Your task to perform on an android device: open app "Spotify" (install if not already installed), go to login, and select forgot password Image 0: 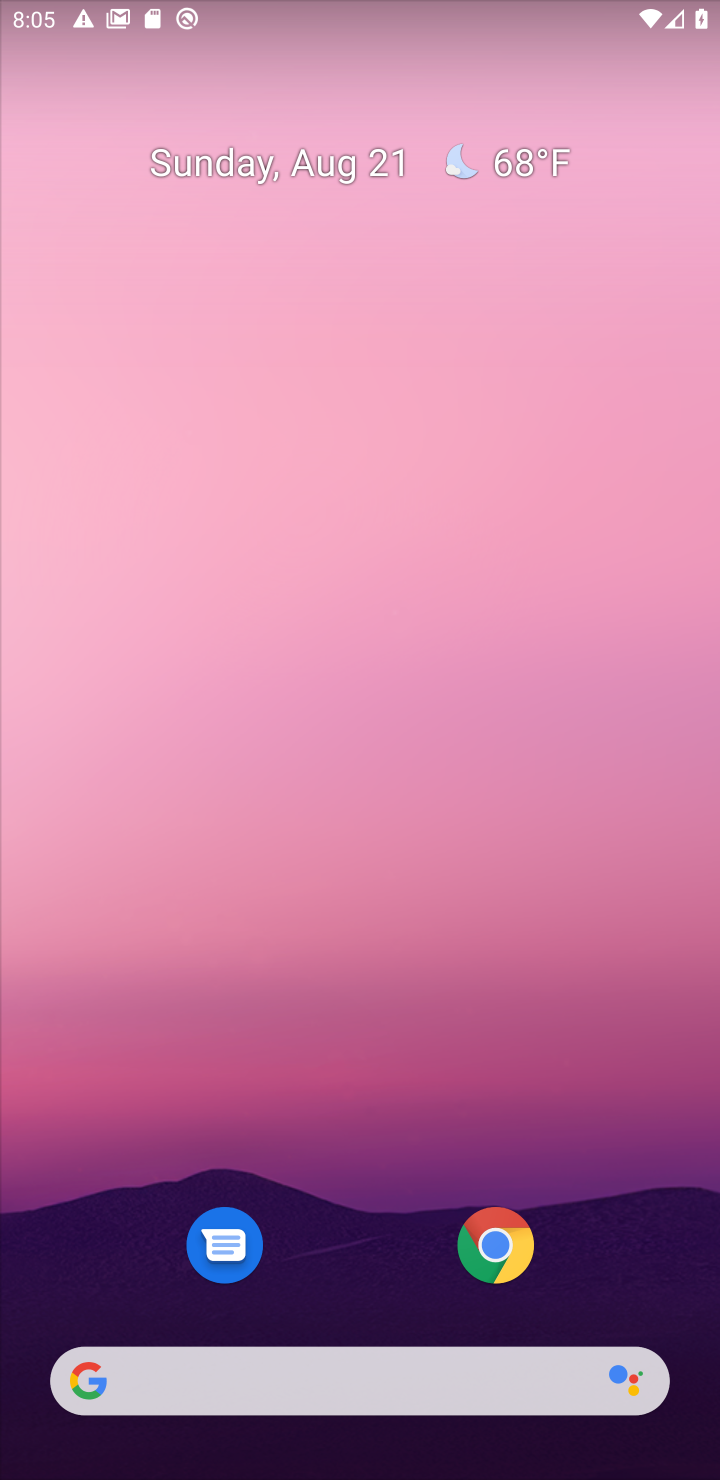
Step 0: drag from (352, 1317) to (259, 14)
Your task to perform on an android device: open app "Spotify" (install if not already installed), go to login, and select forgot password Image 1: 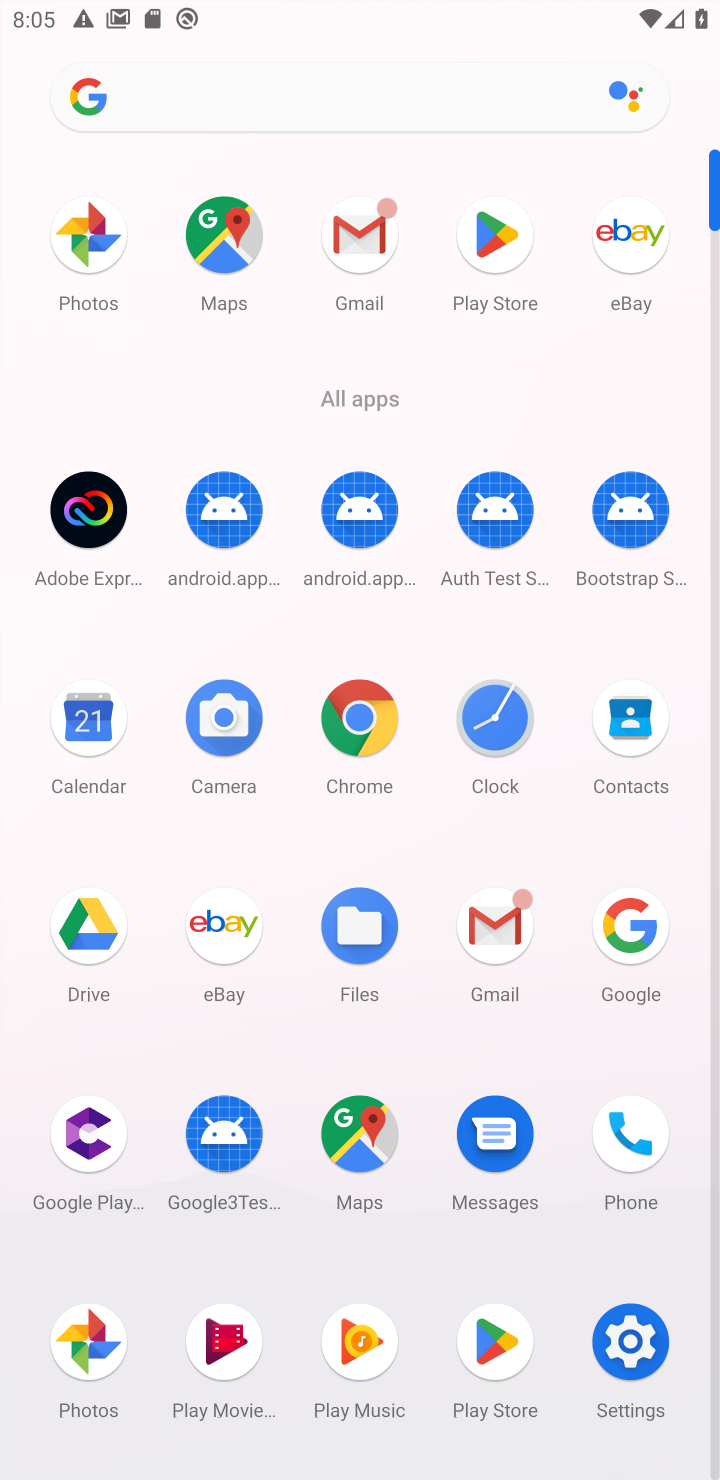
Step 1: click (490, 1356)
Your task to perform on an android device: open app "Spotify" (install if not already installed), go to login, and select forgot password Image 2: 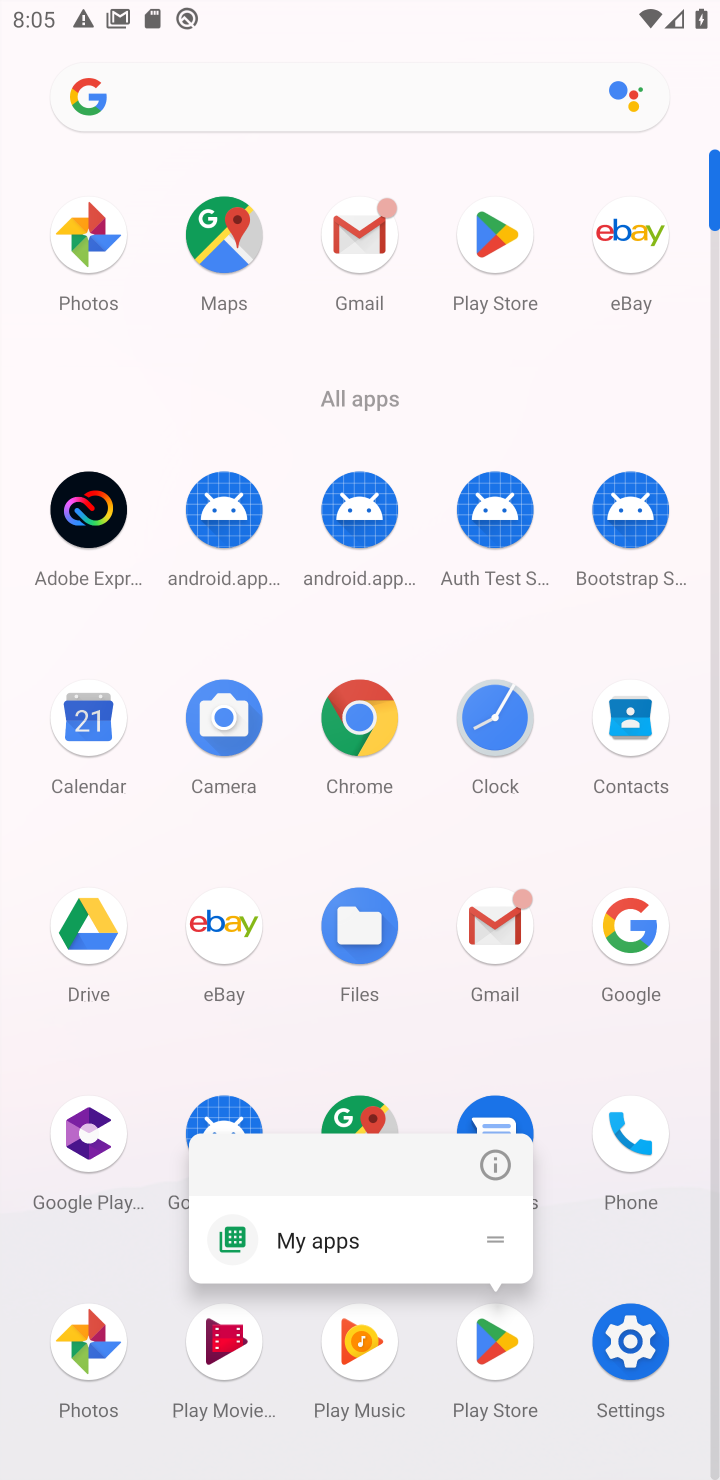
Step 2: click (479, 1337)
Your task to perform on an android device: open app "Spotify" (install if not already installed), go to login, and select forgot password Image 3: 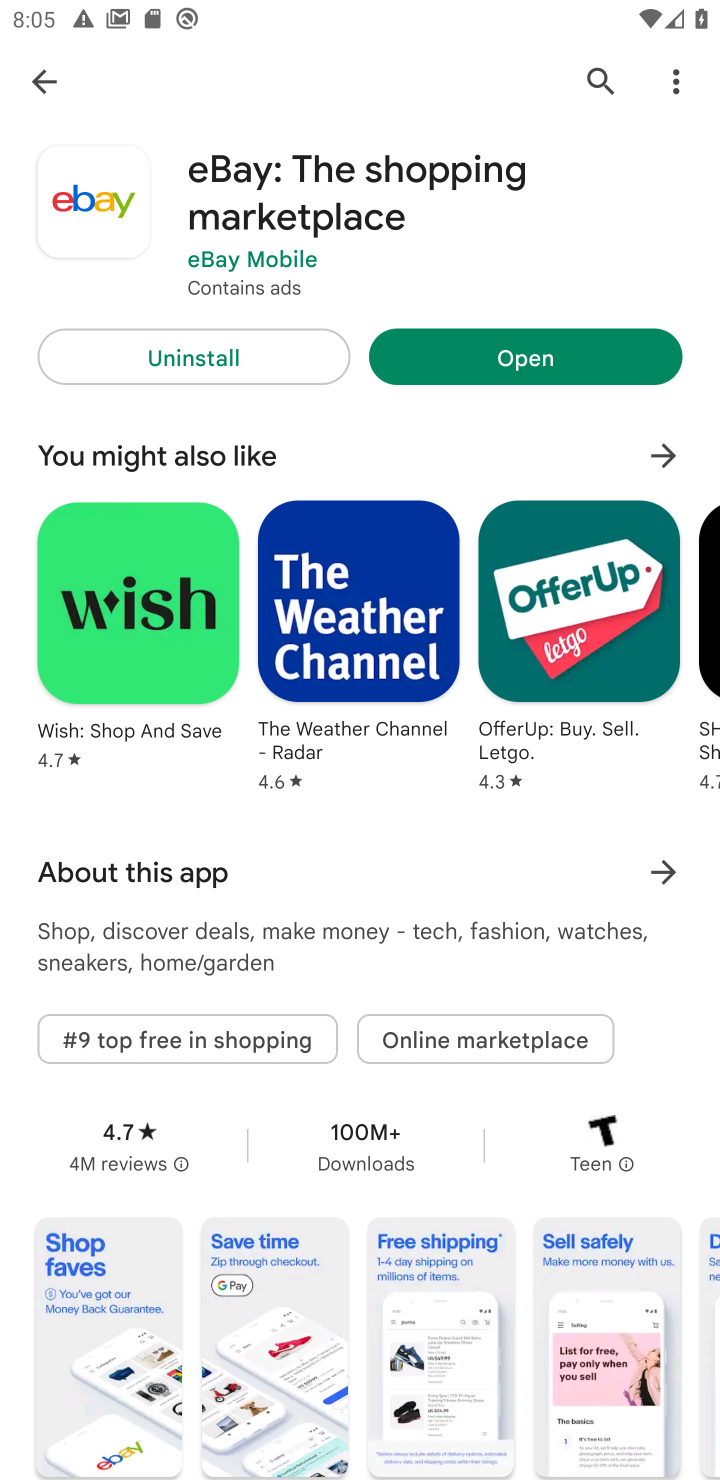
Step 3: click (24, 86)
Your task to perform on an android device: open app "Spotify" (install if not already installed), go to login, and select forgot password Image 4: 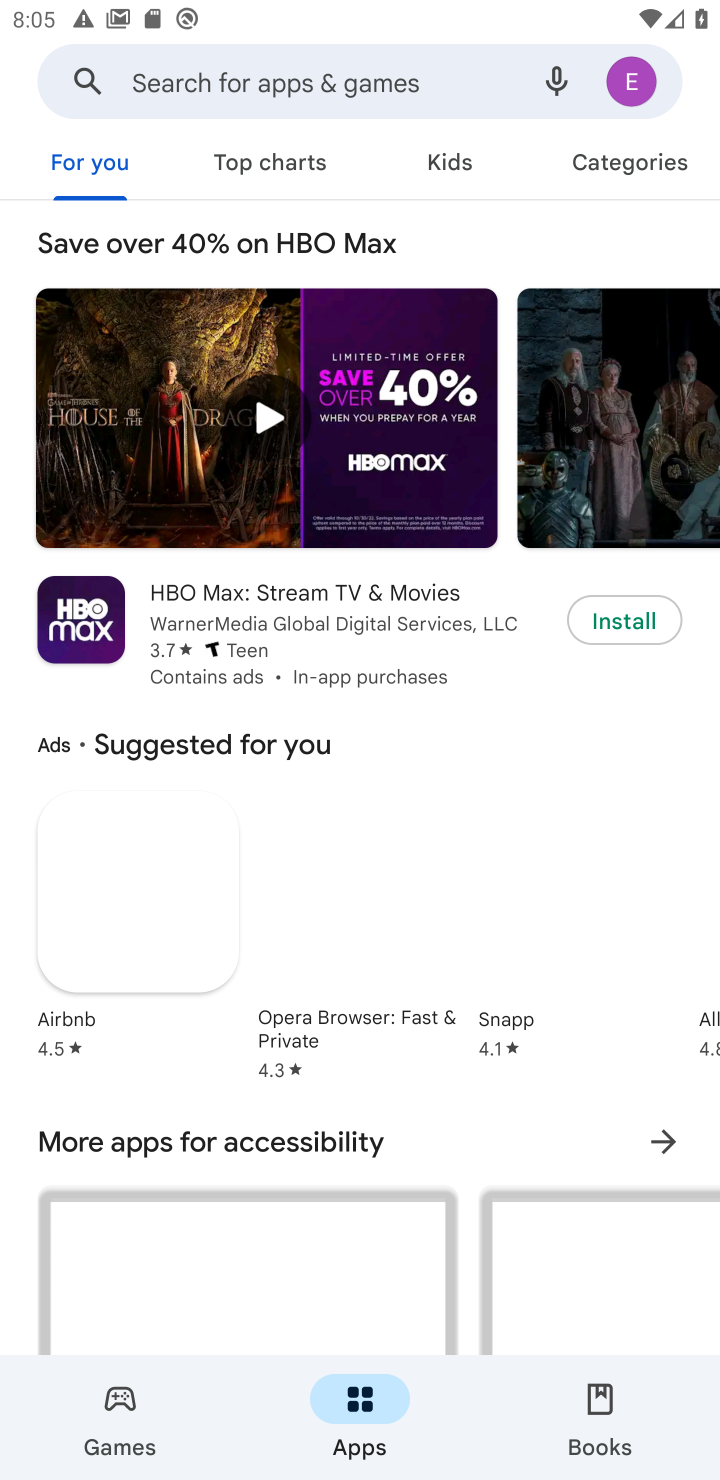
Step 4: click (204, 90)
Your task to perform on an android device: open app "Spotify" (install if not already installed), go to login, and select forgot password Image 5: 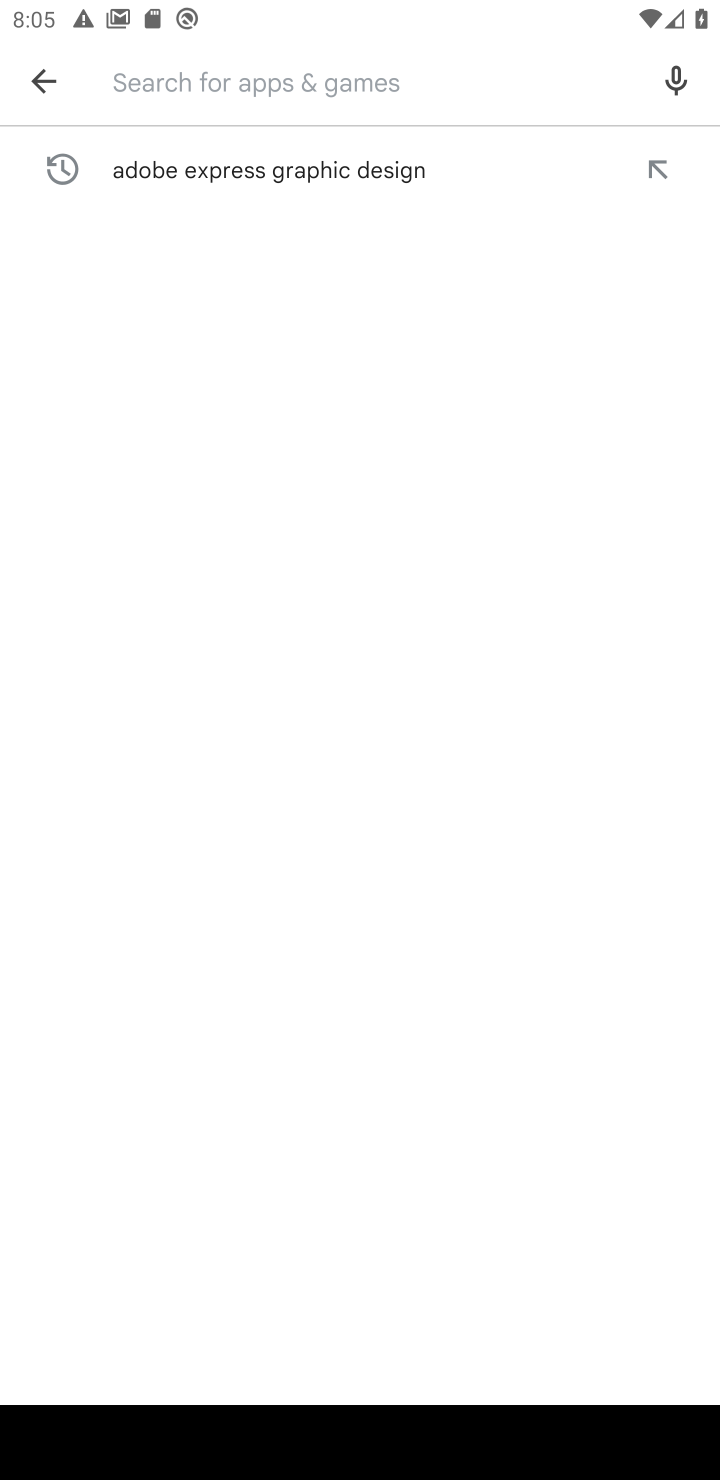
Step 5: type "Spotify"
Your task to perform on an android device: open app "Spotify" (install if not already installed), go to login, and select forgot password Image 6: 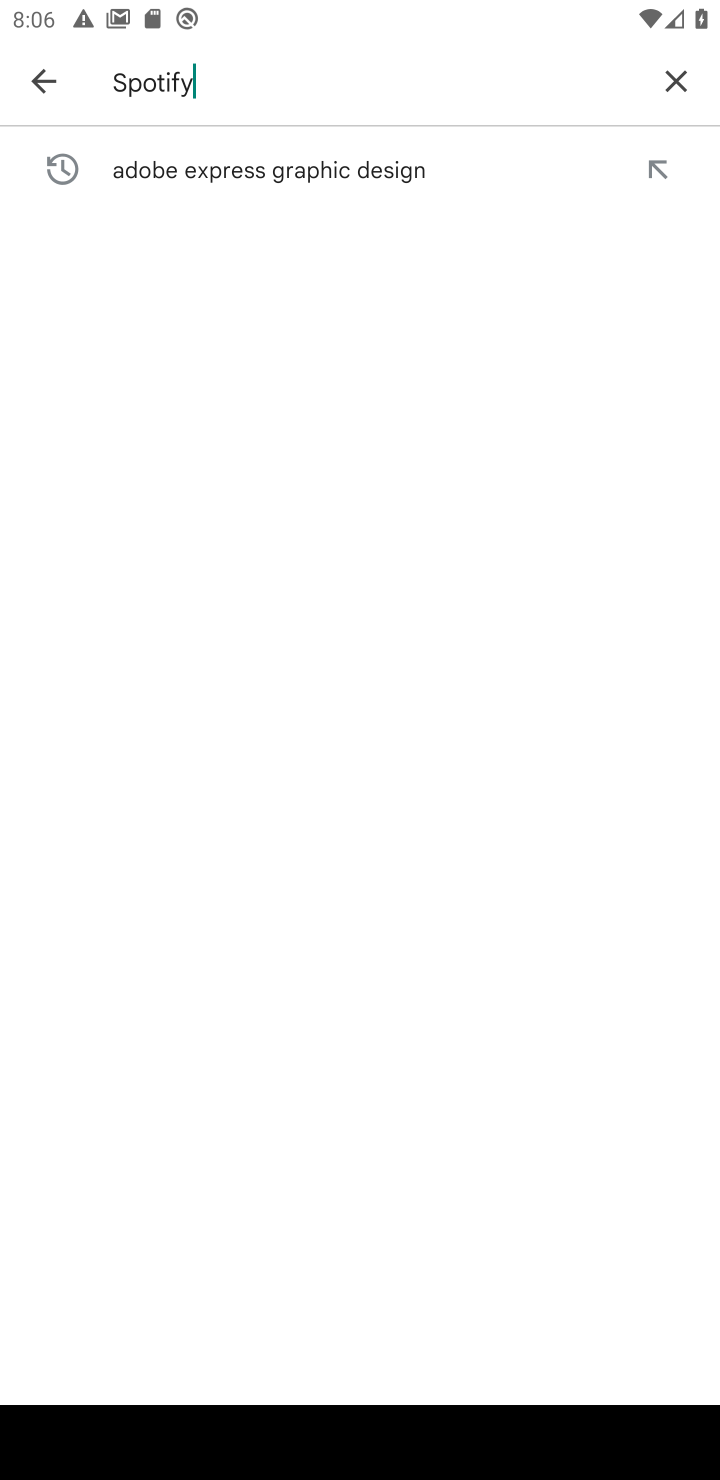
Step 6: type ""
Your task to perform on an android device: open app "Spotify" (install if not already installed), go to login, and select forgot password Image 7: 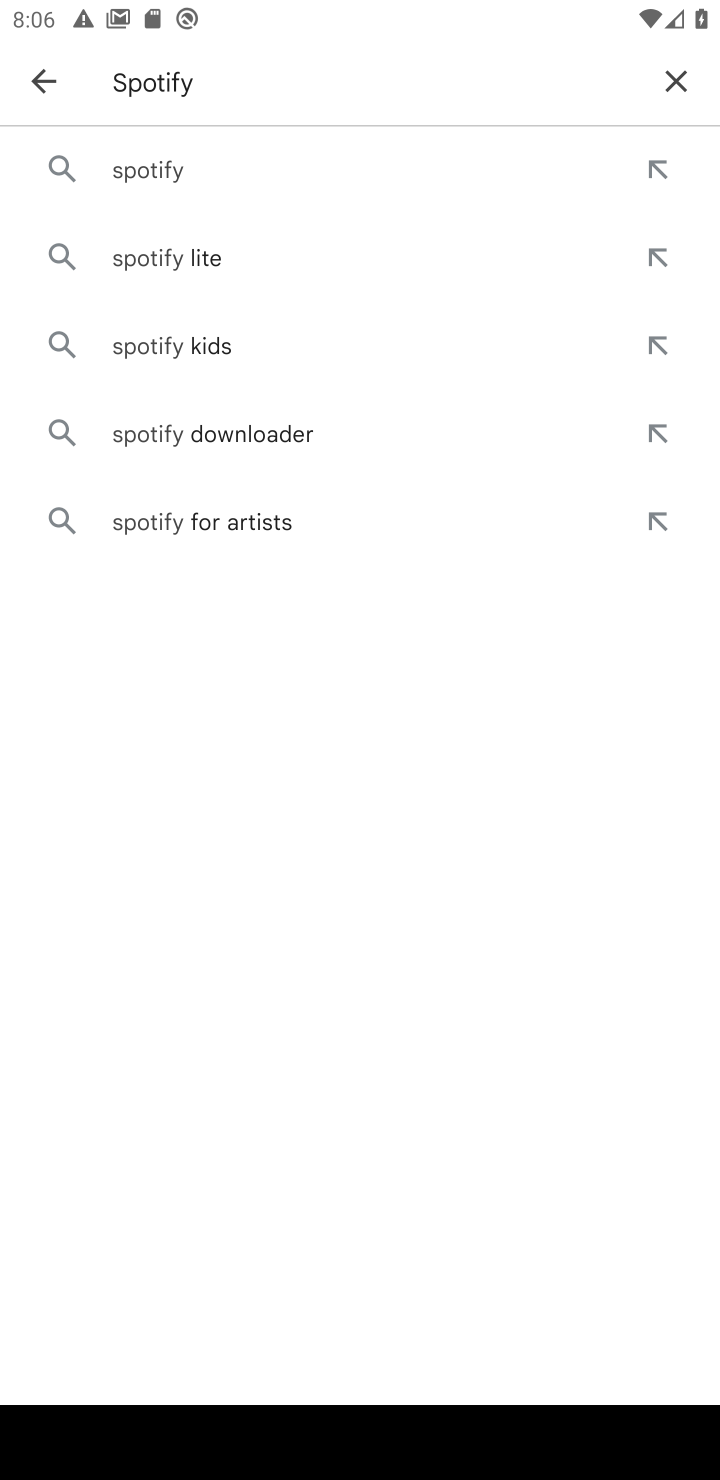
Step 7: click (239, 162)
Your task to perform on an android device: open app "Spotify" (install if not already installed), go to login, and select forgot password Image 8: 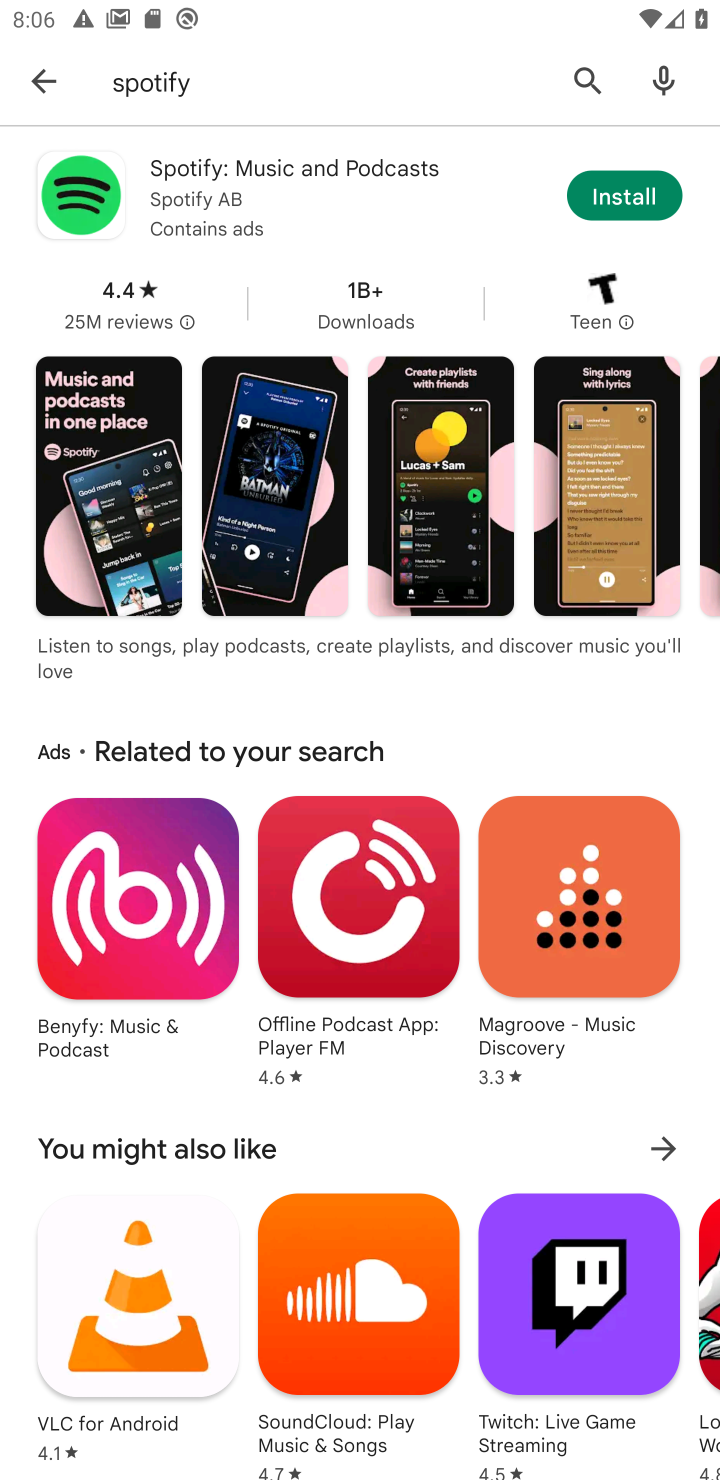
Step 8: click (663, 188)
Your task to perform on an android device: open app "Spotify" (install if not already installed), go to login, and select forgot password Image 9: 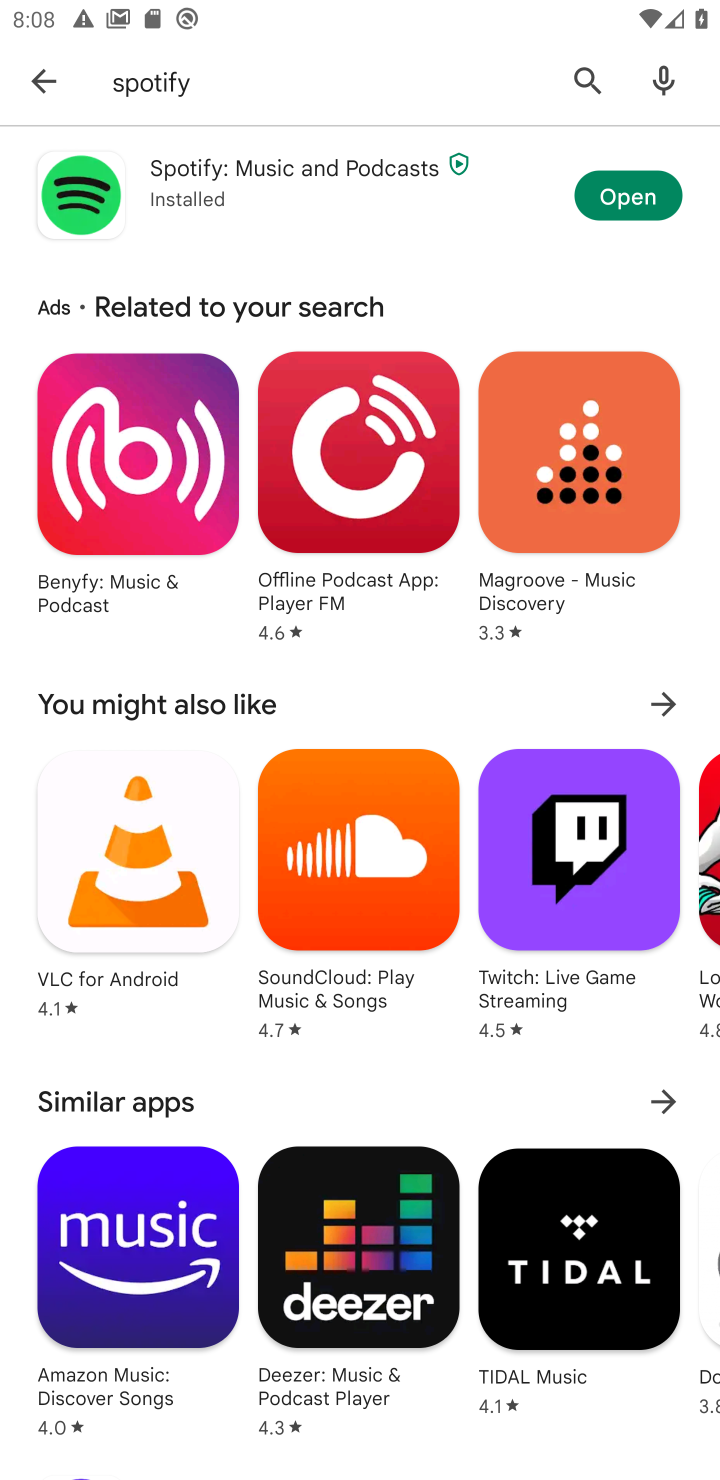
Step 9: click (597, 182)
Your task to perform on an android device: open app "Spotify" (install if not already installed), go to login, and select forgot password Image 10: 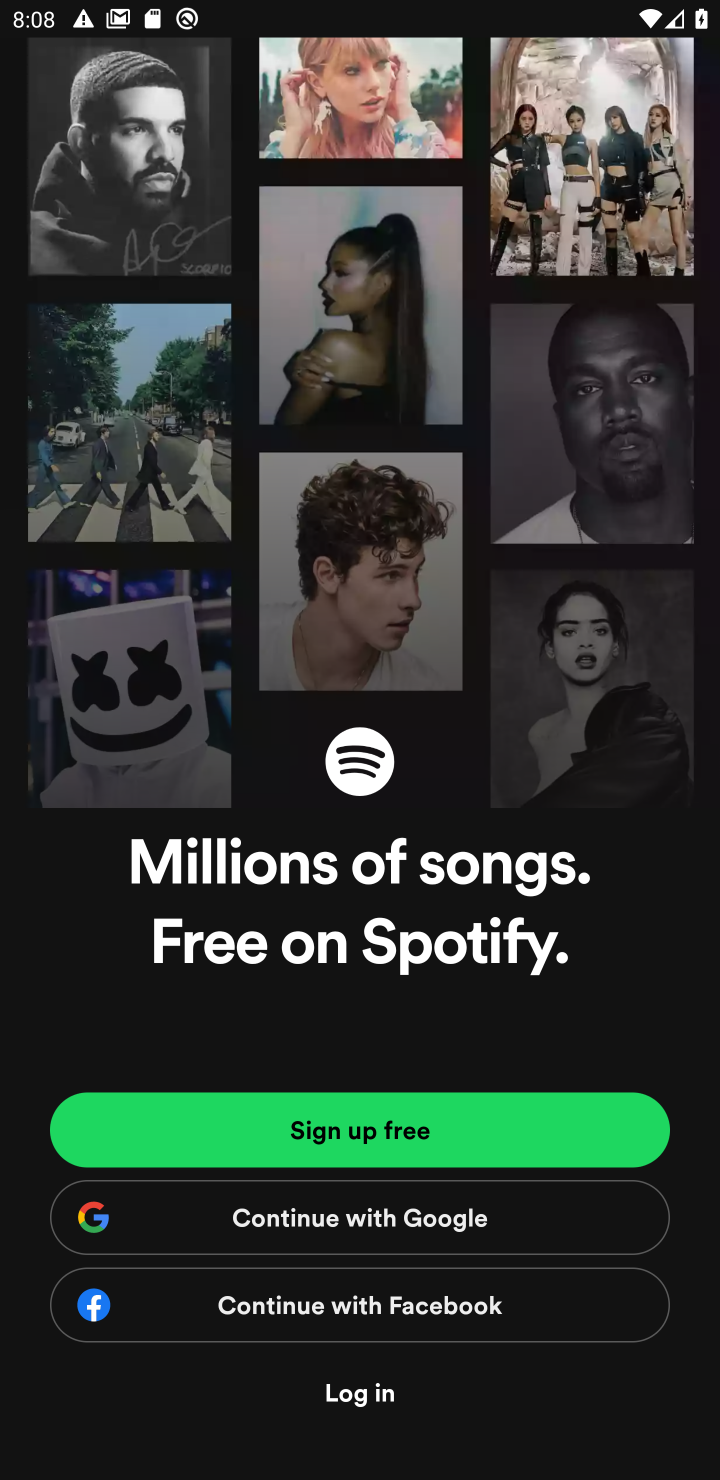
Step 10: click (361, 1397)
Your task to perform on an android device: open app "Spotify" (install if not already installed), go to login, and select forgot password Image 11: 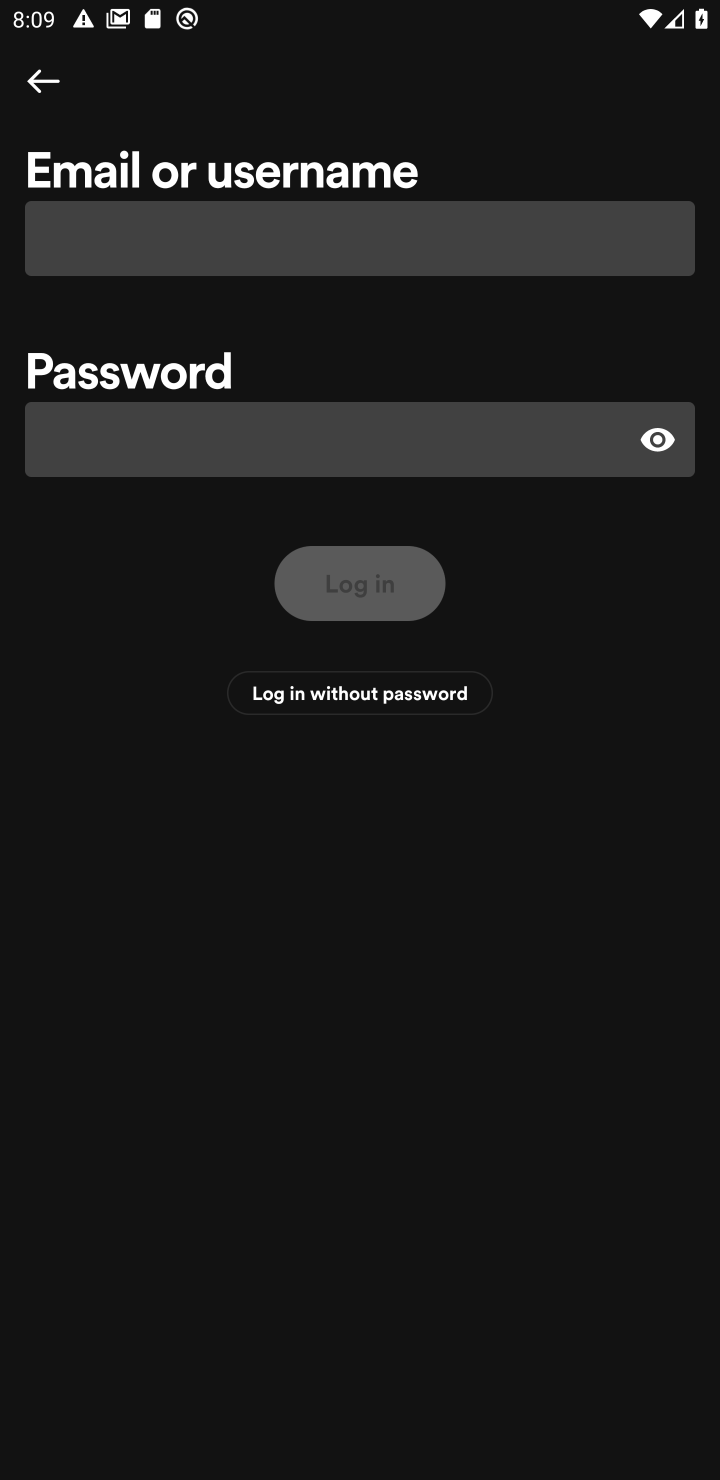
Step 11: click (198, 249)
Your task to perform on an android device: open app "Spotify" (install if not already installed), go to login, and select forgot password Image 12: 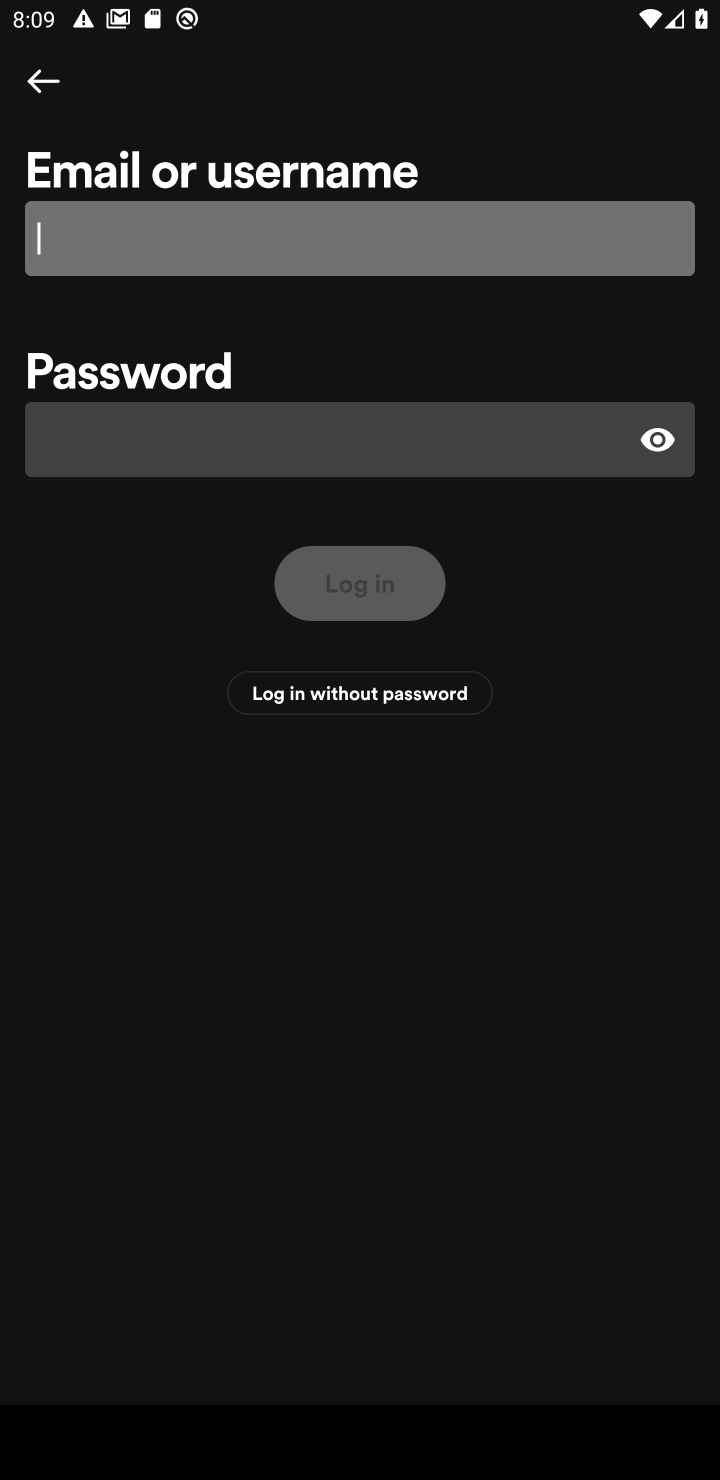
Step 12: click (422, 705)
Your task to perform on an android device: open app "Spotify" (install if not already installed), go to login, and select forgot password Image 13: 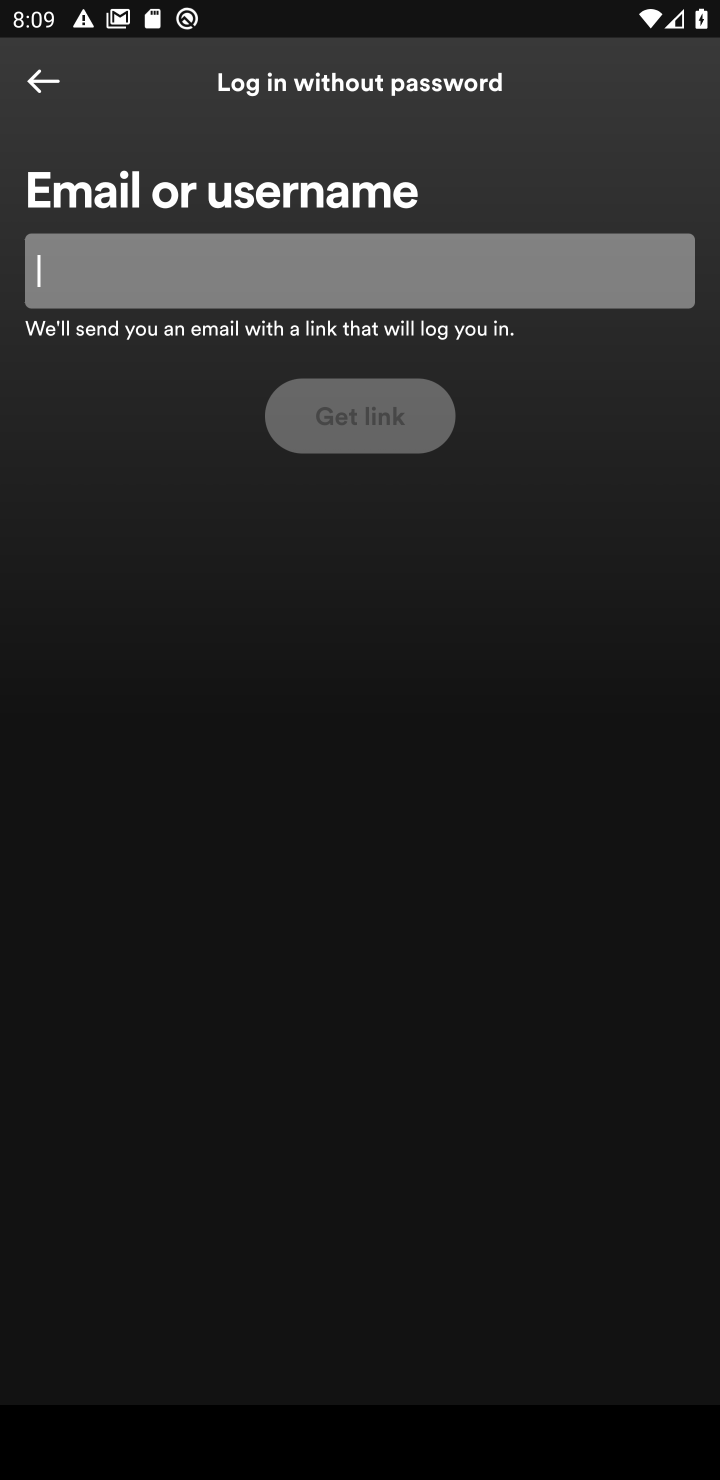
Step 13: task complete